Your task to perform on an android device: check battery use Image 0: 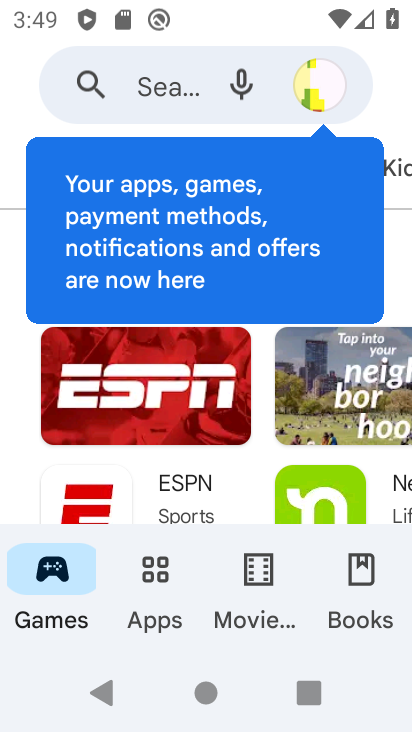
Step 0: press home button
Your task to perform on an android device: check battery use Image 1: 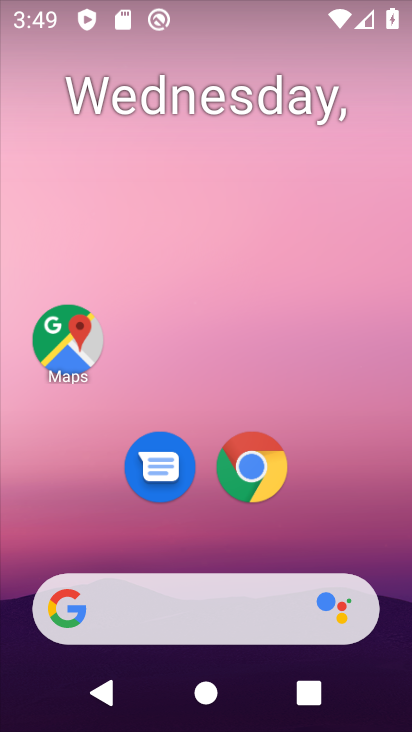
Step 1: drag from (343, 522) to (179, 0)
Your task to perform on an android device: check battery use Image 2: 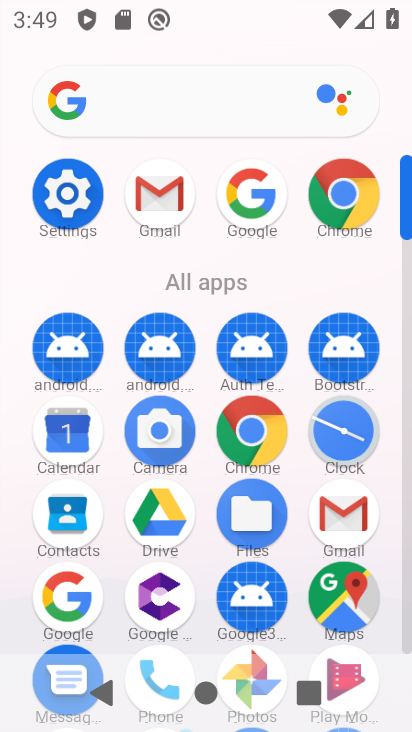
Step 2: click (58, 189)
Your task to perform on an android device: check battery use Image 3: 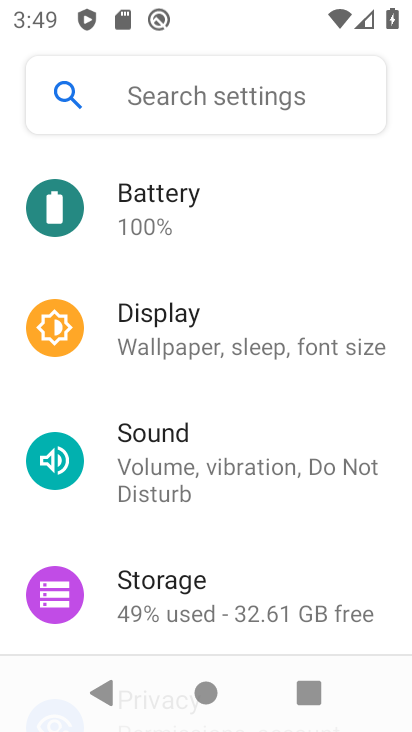
Step 3: click (198, 206)
Your task to perform on an android device: check battery use Image 4: 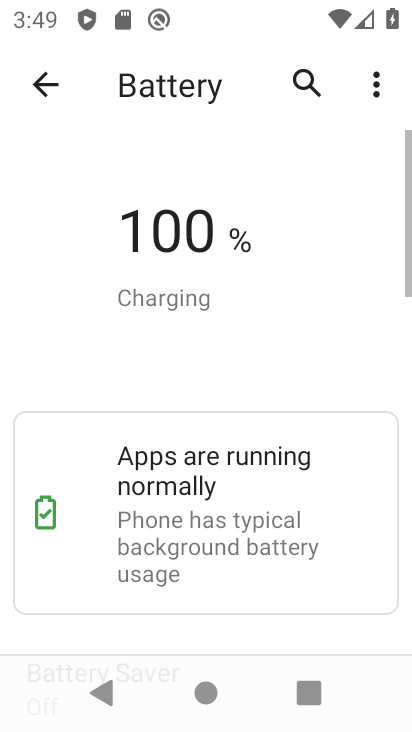
Step 4: click (365, 78)
Your task to perform on an android device: check battery use Image 5: 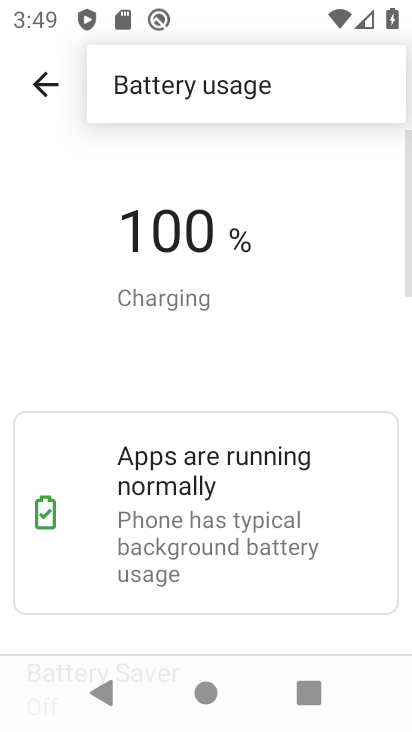
Step 5: click (311, 81)
Your task to perform on an android device: check battery use Image 6: 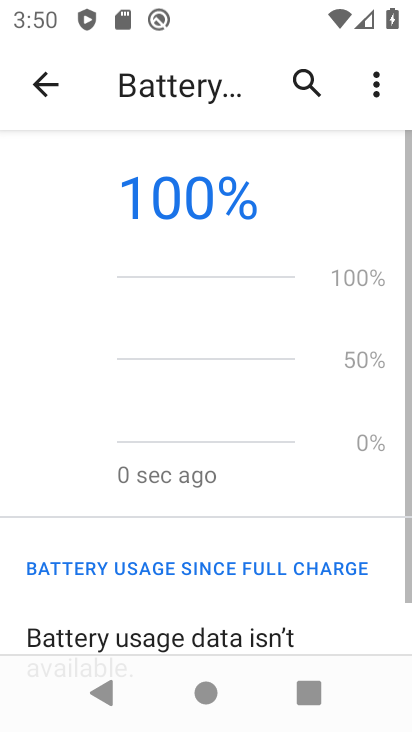
Step 6: task complete